Your task to perform on an android device: Search for Mexican restaurants on Maps Image 0: 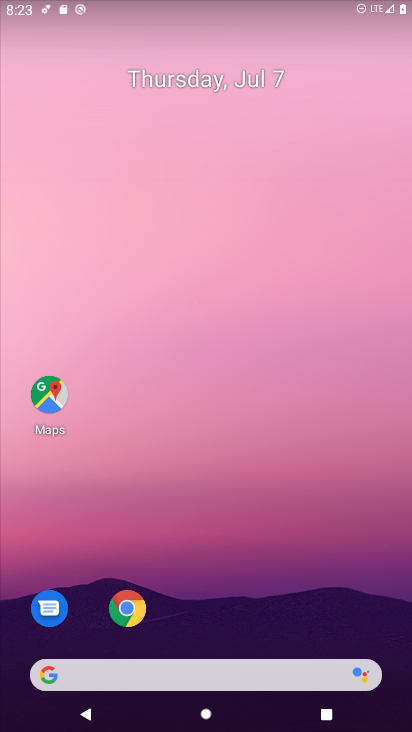
Step 0: click (50, 397)
Your task to perform on an android device: Search for Mexican restaurants on Maps Image 1: 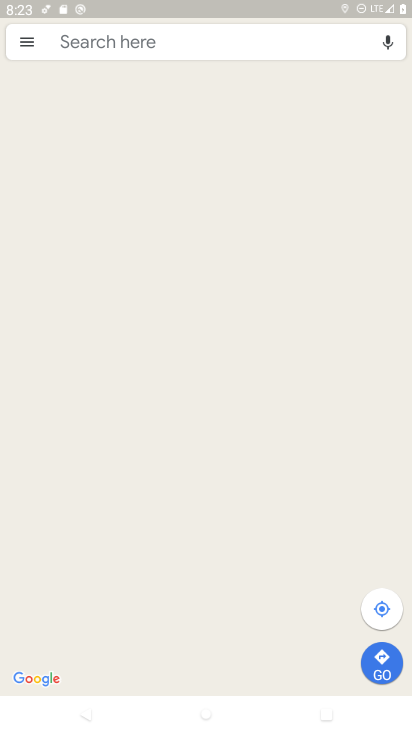
Step 1: click (105, 40)
Your task to perform on an android device: Search for Mexican restaurants on Maps Image 2: 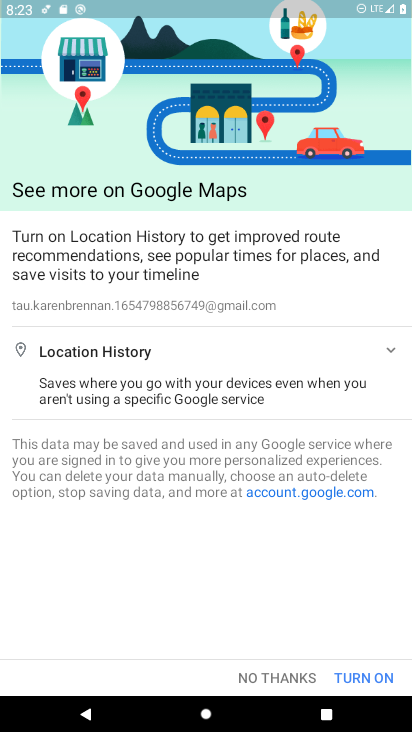
Step 2: press back button
Your task to perform on an android device: Search for Mexican restaurants on Maps Image 3: 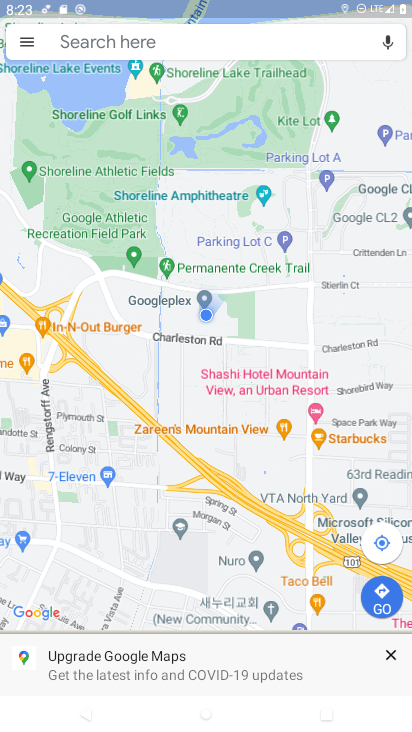
Step 3: click (107, 38)
Your task to perform on an android device: Search for Mexican restaurants on Maps Image 4: 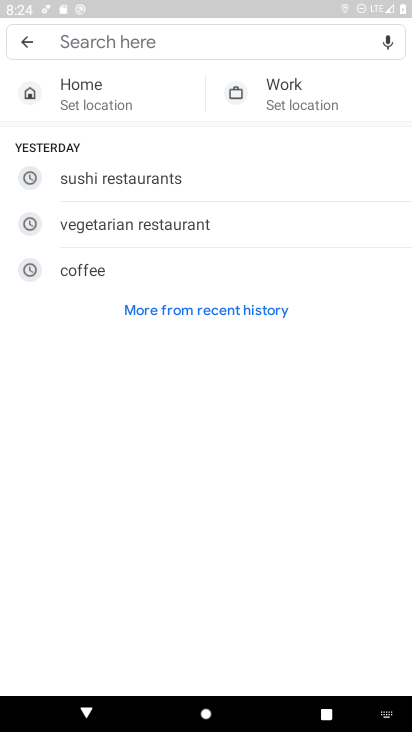
Step 4: type "Mexican restaurants"
Your task to perform on an android device: Search for Mexican restaurants on Maps Image 5: 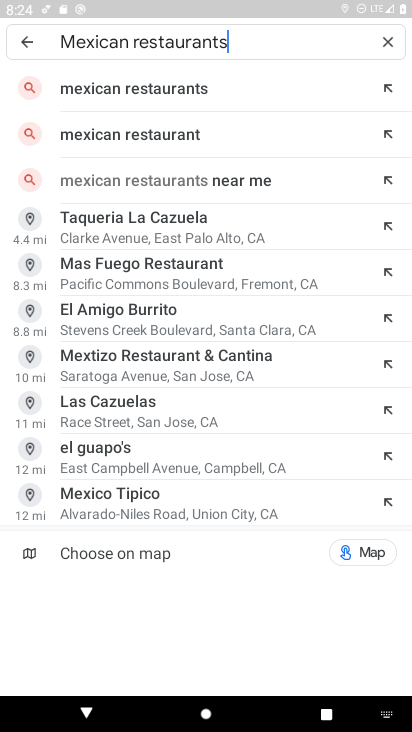
Step 5: click (119, 82)
Your task to perform on an android device: Search for Mexican restaurants on Maps Image 6: 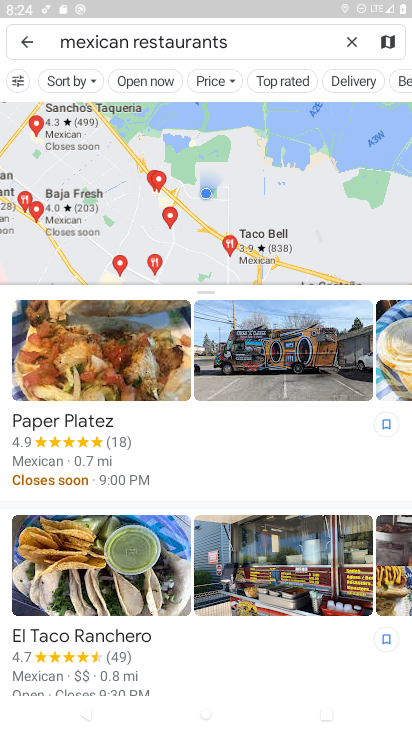
Step 6: task complete